Your task to perform on an android device: Clear the shopping cart on target. Add razer blade to the cart on target, then select checkout. Image 0: 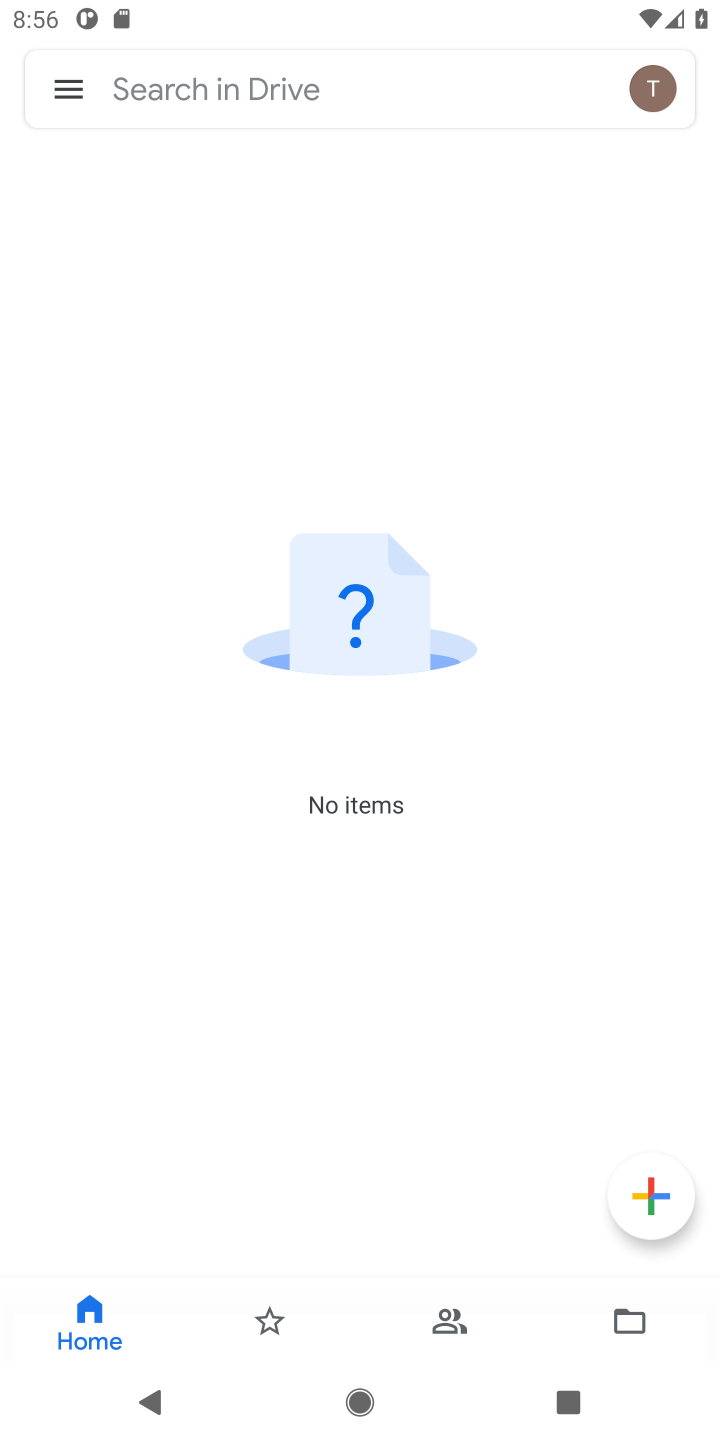
Step 0: press home button
Your task to perform on an android device: Clear the shopping cart on target. Add razer blade to the cart on target, then select checkout. Image 1: 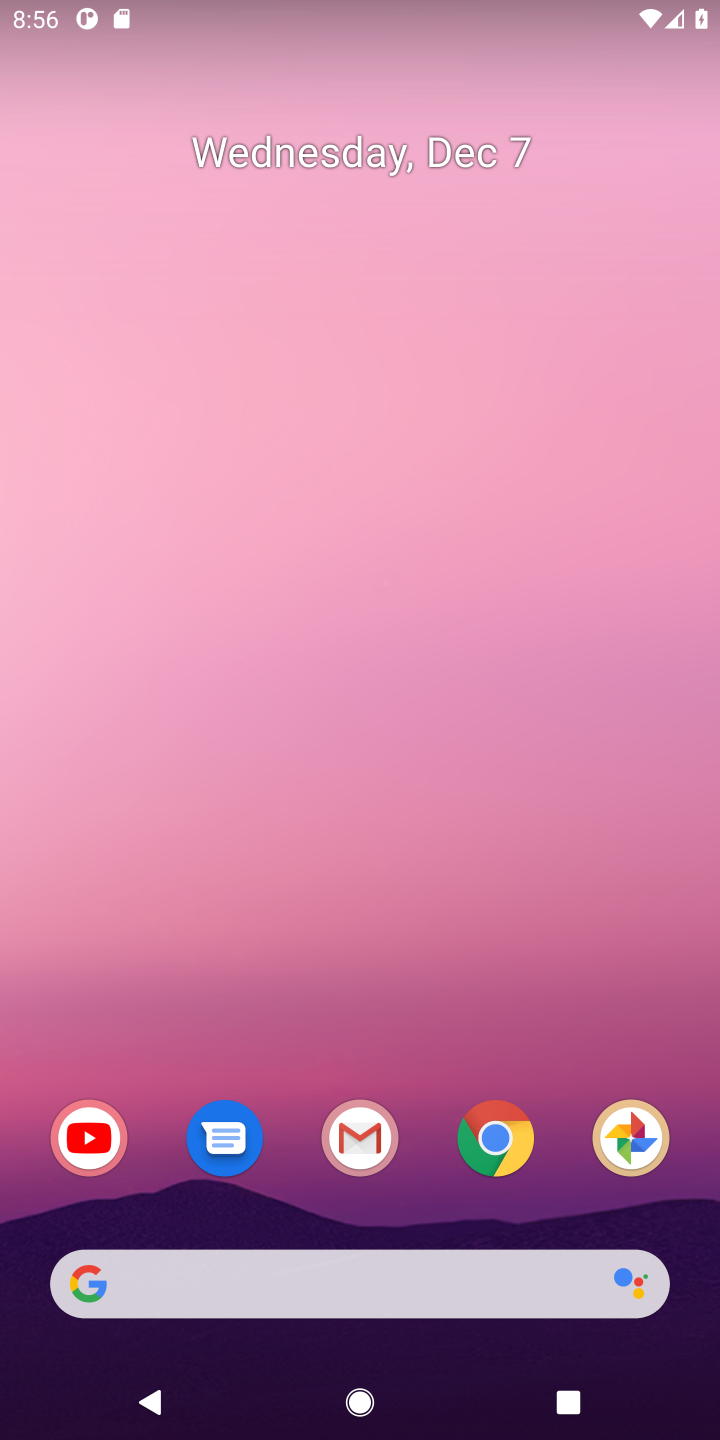
Step 1: click (132, 1270)
Your task to perform on an android device: Clear the shopping cart on target. Add razer blade to the cart on target, then select checkout. Image 2: 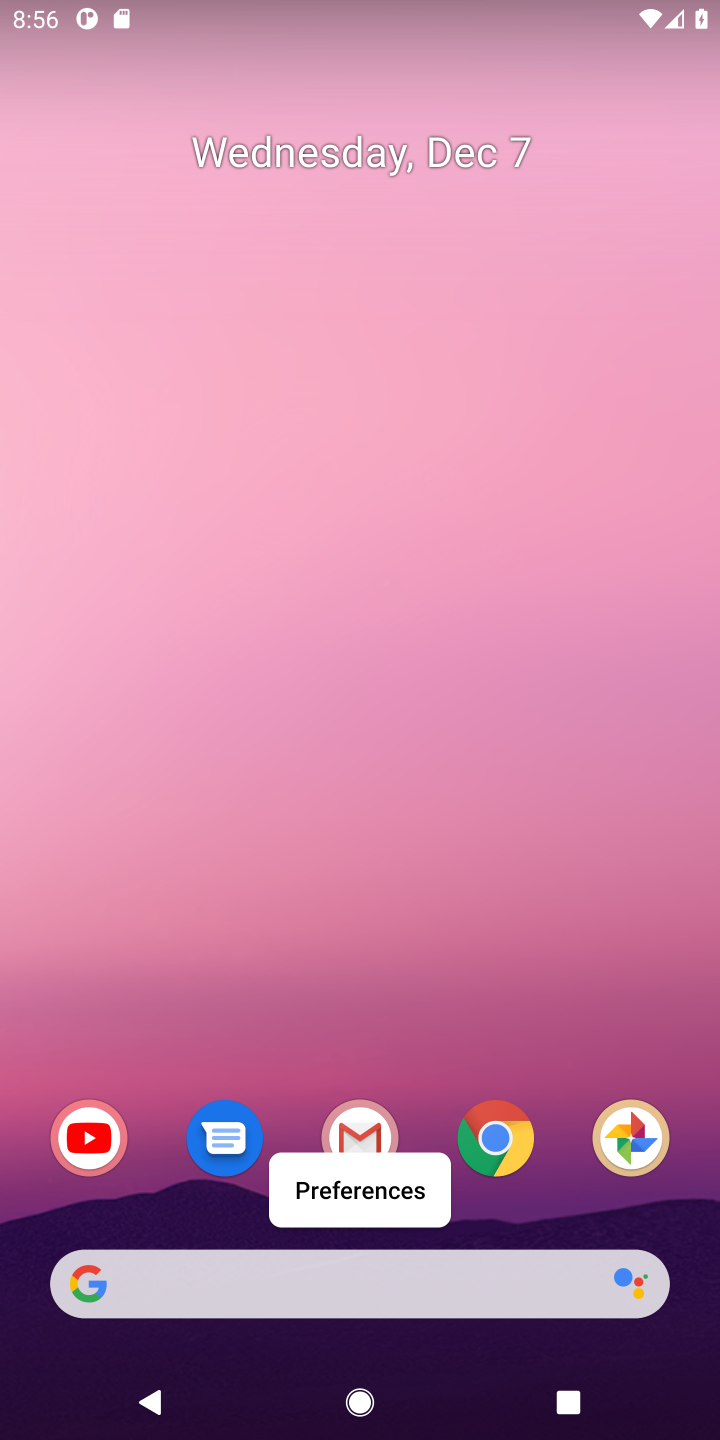
Step 2: click (120, 1303)
Your task to perform on an android device: Clear the shopping cart on target. Add razer blade to the cart on target, then select checkout. Image 3: 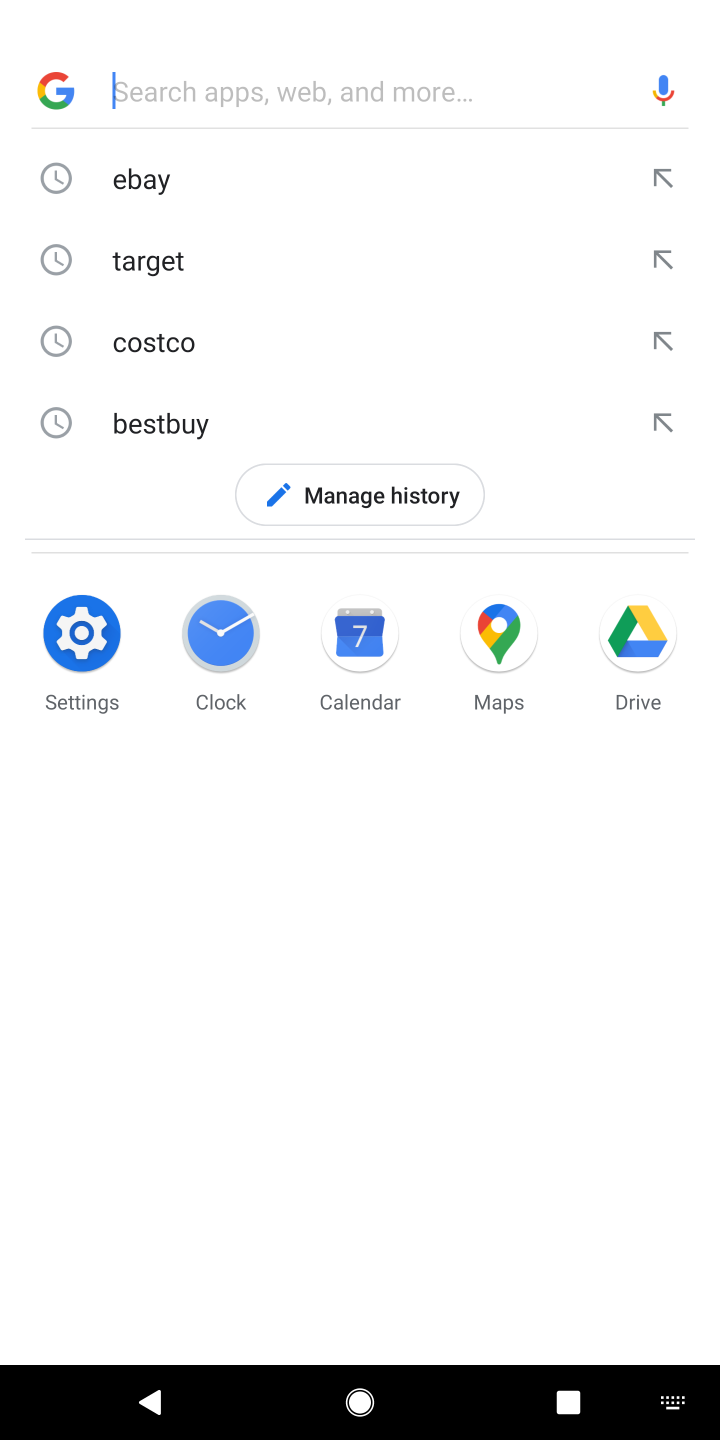
Step 3: type "target"
Your task to perform on an android device: Clear the shopping cart on target. Add razer blade to the cart on target, then select checkout. Image 4: 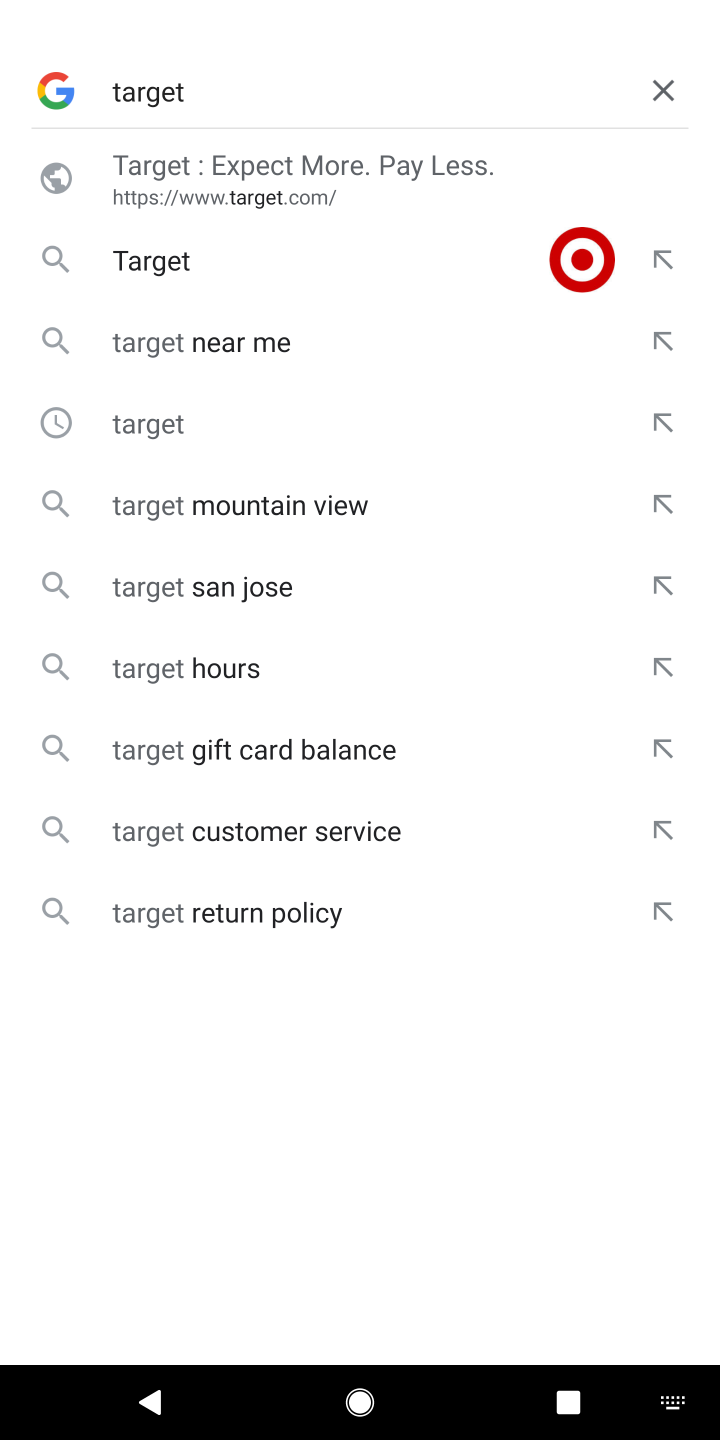
Step 4: press enter
Your task to perform on an android device: Clear the shopping cart on target. Add razer blade to the cart on target, then select checkout. Image 5: 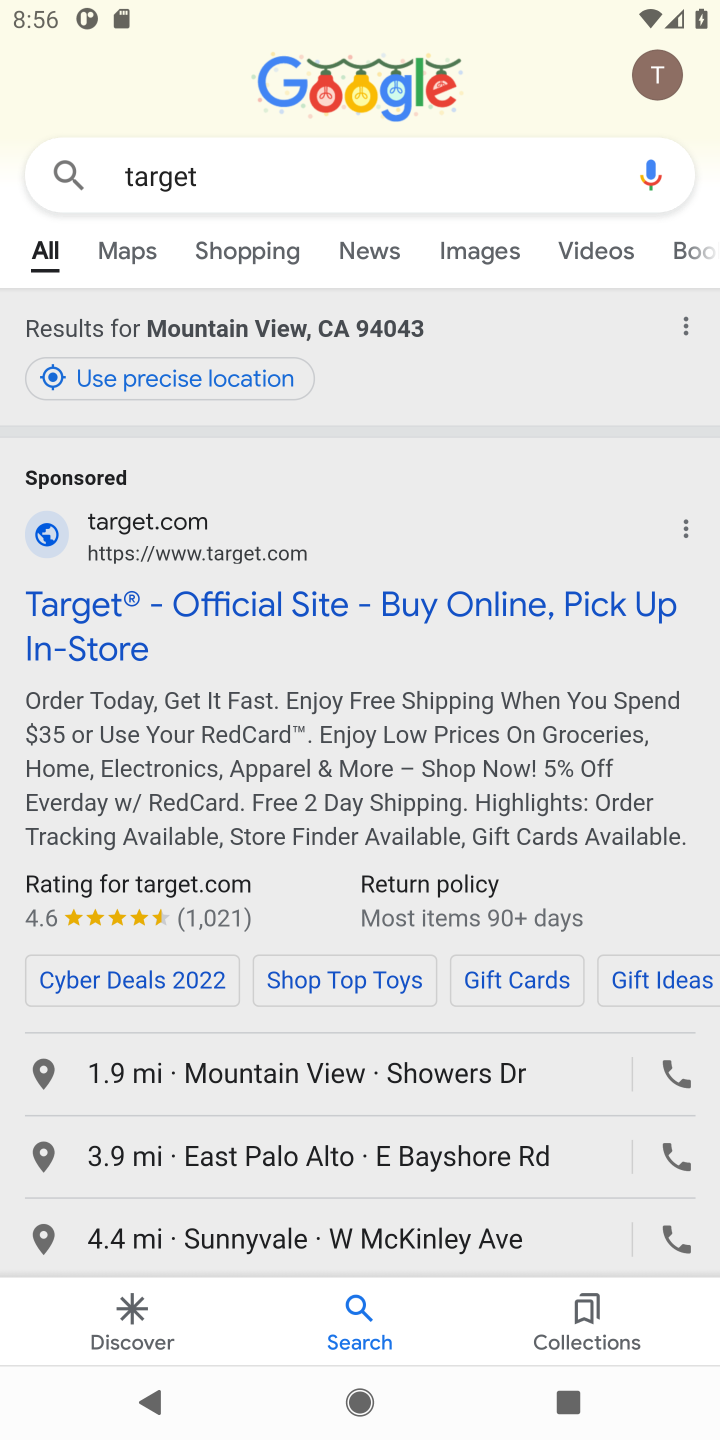
Step 5: click (247, 604)
Your task to perform on an android device: Clear the shopping cart on target. Add razer blade to the cart on target, then select checkout. Image 6: 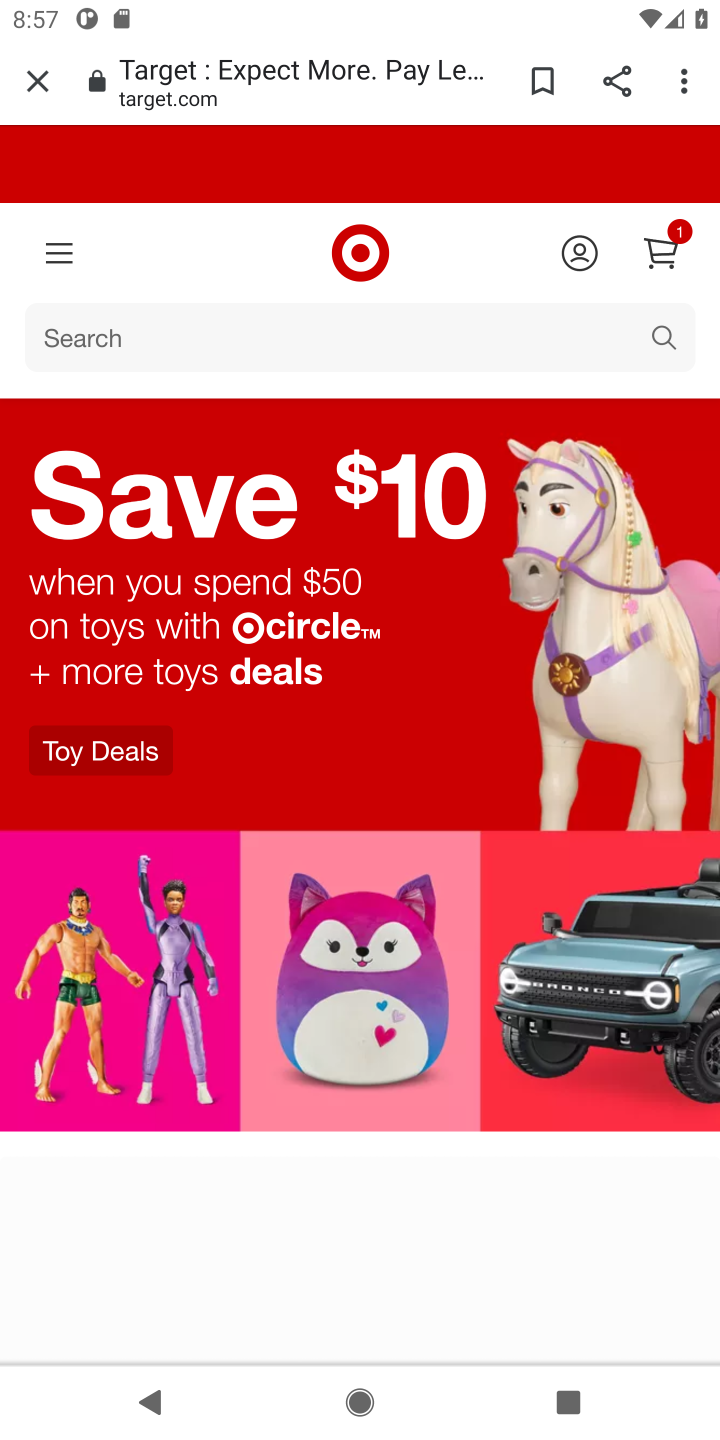
Step 6: click (666, 237)
Your task to perform on an android device: Clear the shopping cart on target. Add razer blade to the cart on target, then select checkout. Image 7: 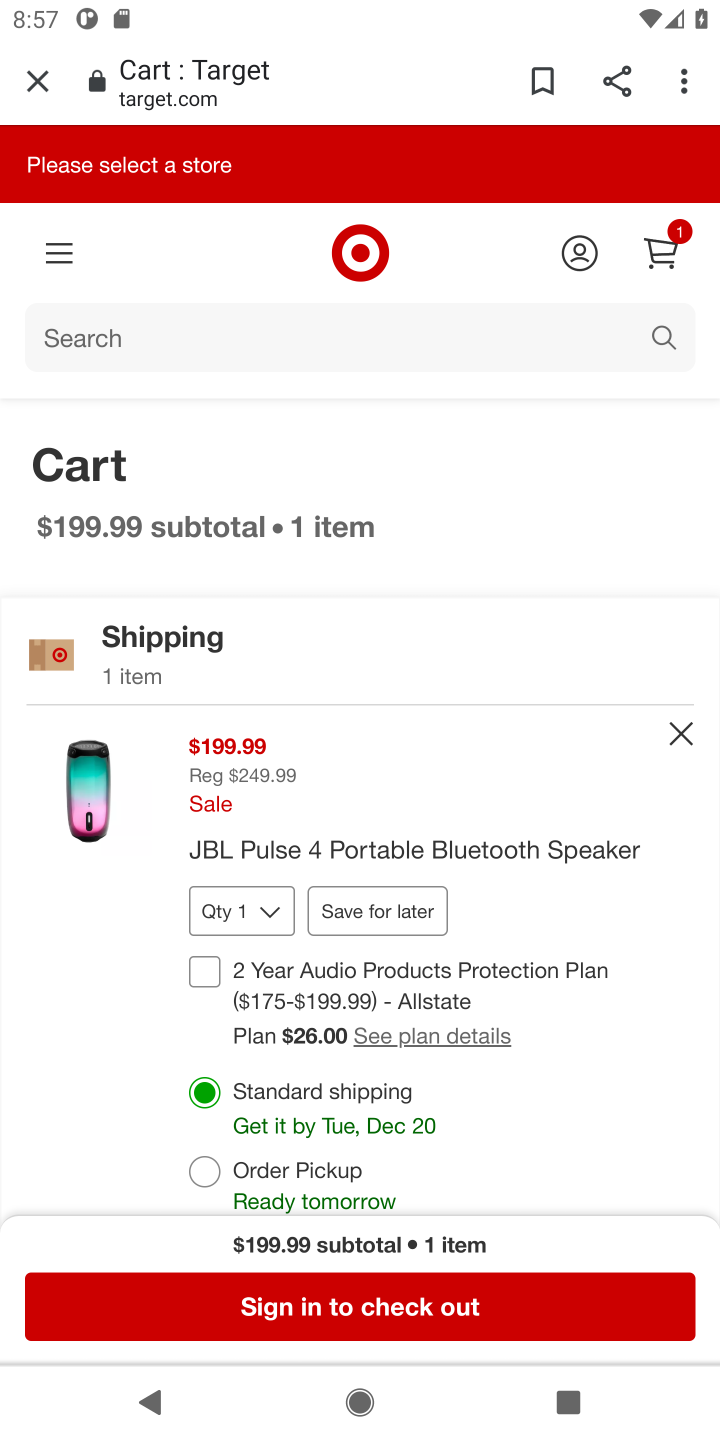
Step 7: click (675, 726)
Your task to perform on an android device: Clear the shopping cart on target. Add razer blade to the cart on target, then select checkout. Image 8: 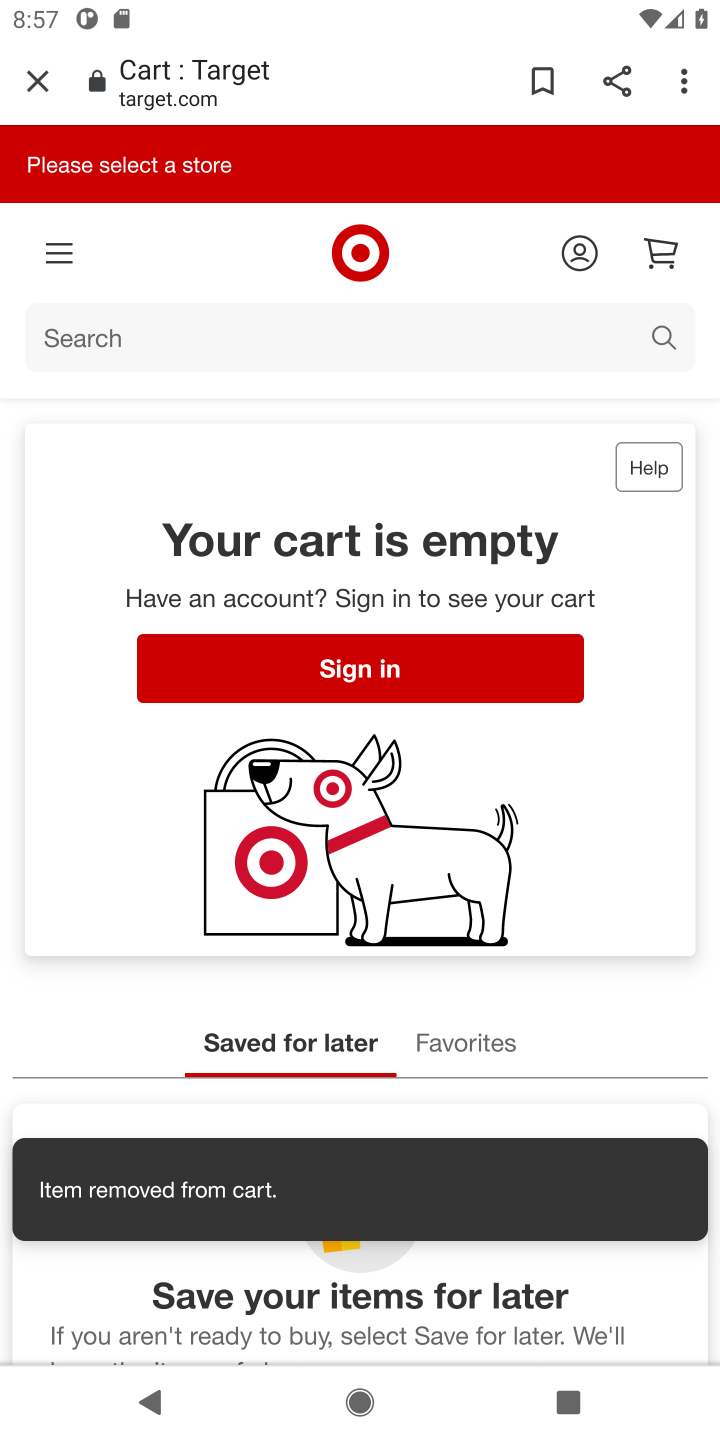
Step 8: click (182, 328)
Your task to perform on an android device: Clear the shopping cart on target. Add razer blade to the cart on target, then select checkout. Image 9: 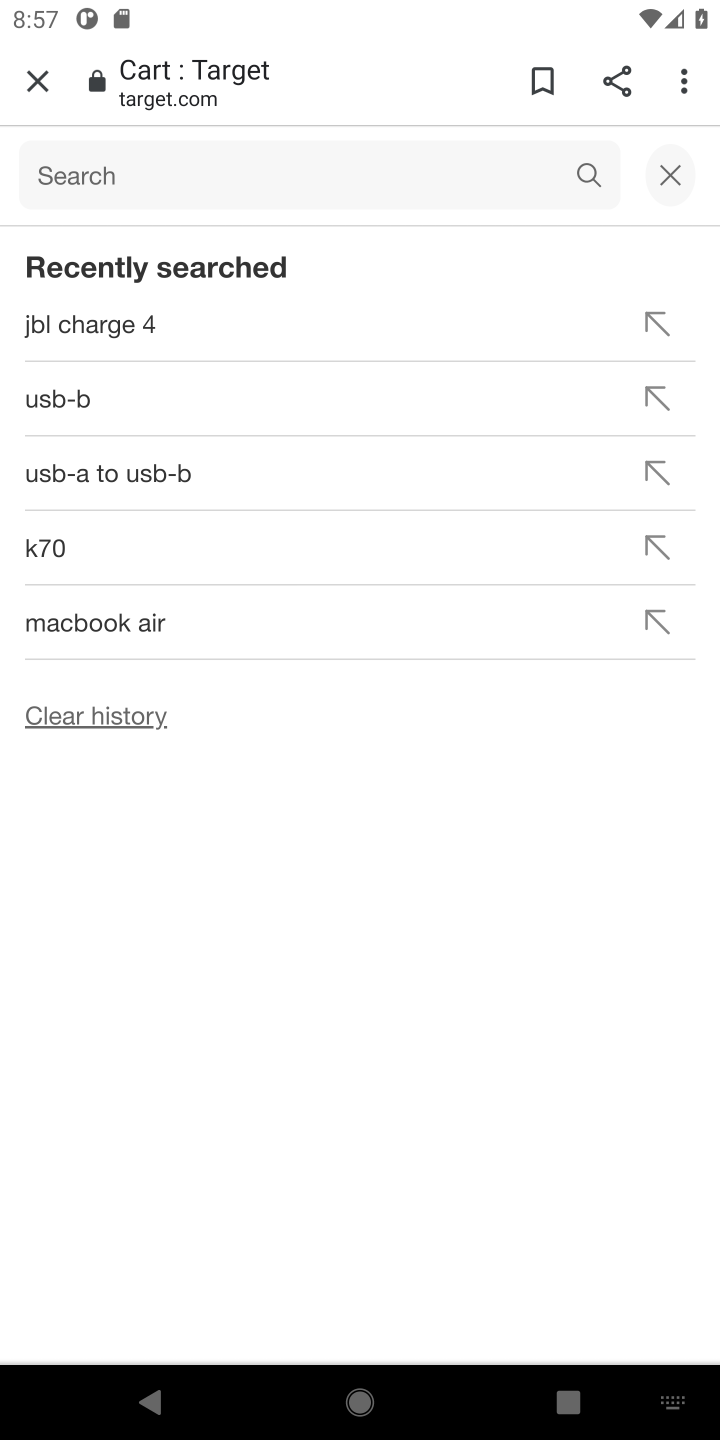
Step 9: type "Add razer blade"
Your task to perform on an android device: Clear the shopping cart on target. Add razer blade to the cart on target, then select checkout. Image 10: 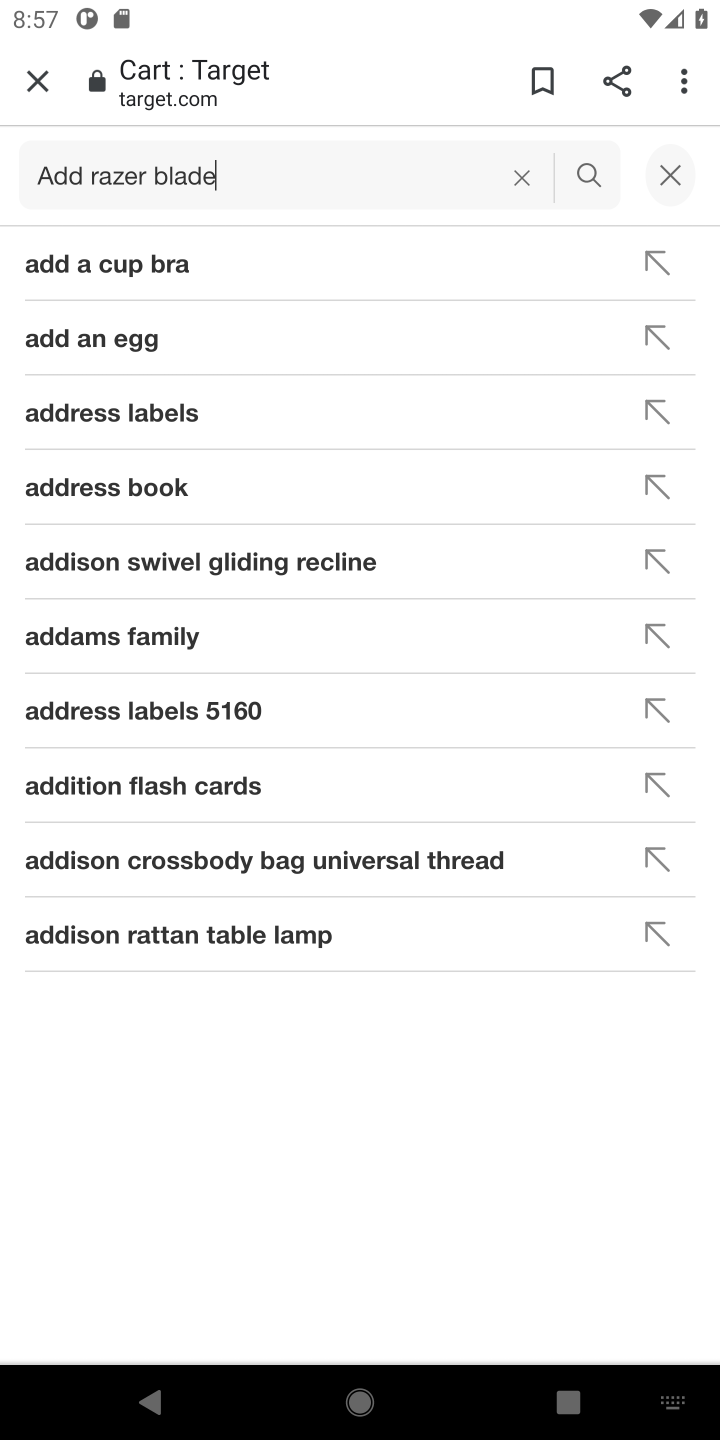
Step 10: click (592, 173)
Your task to perform on an android device: Clear the shopping cart on target. Add razer blade to the cart on target, then select checkout. Image 11: 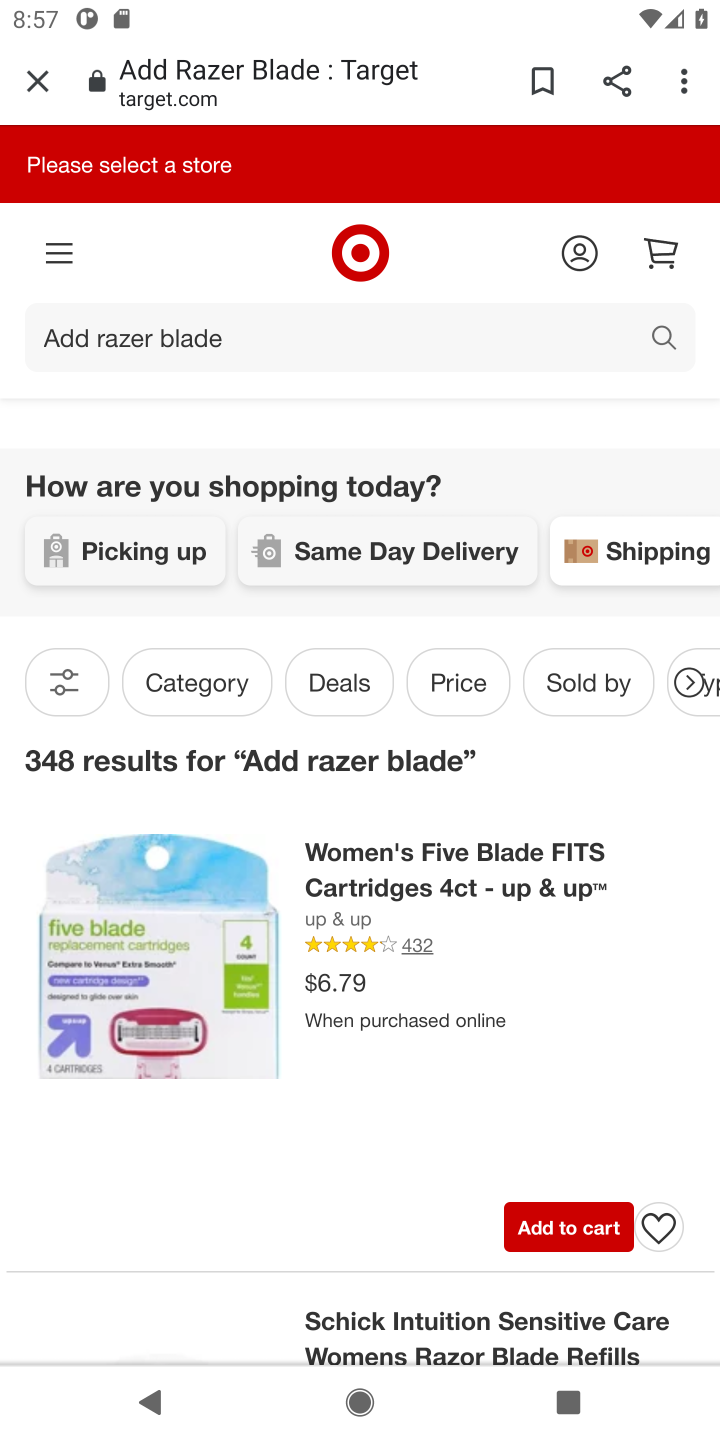
Step 11: drag from (365, 1139) to (438, 562)
Your task to perform on an android device: Clear the shopping cart on target. Add razer blade to the cart on target, then select checkout. Image 12: 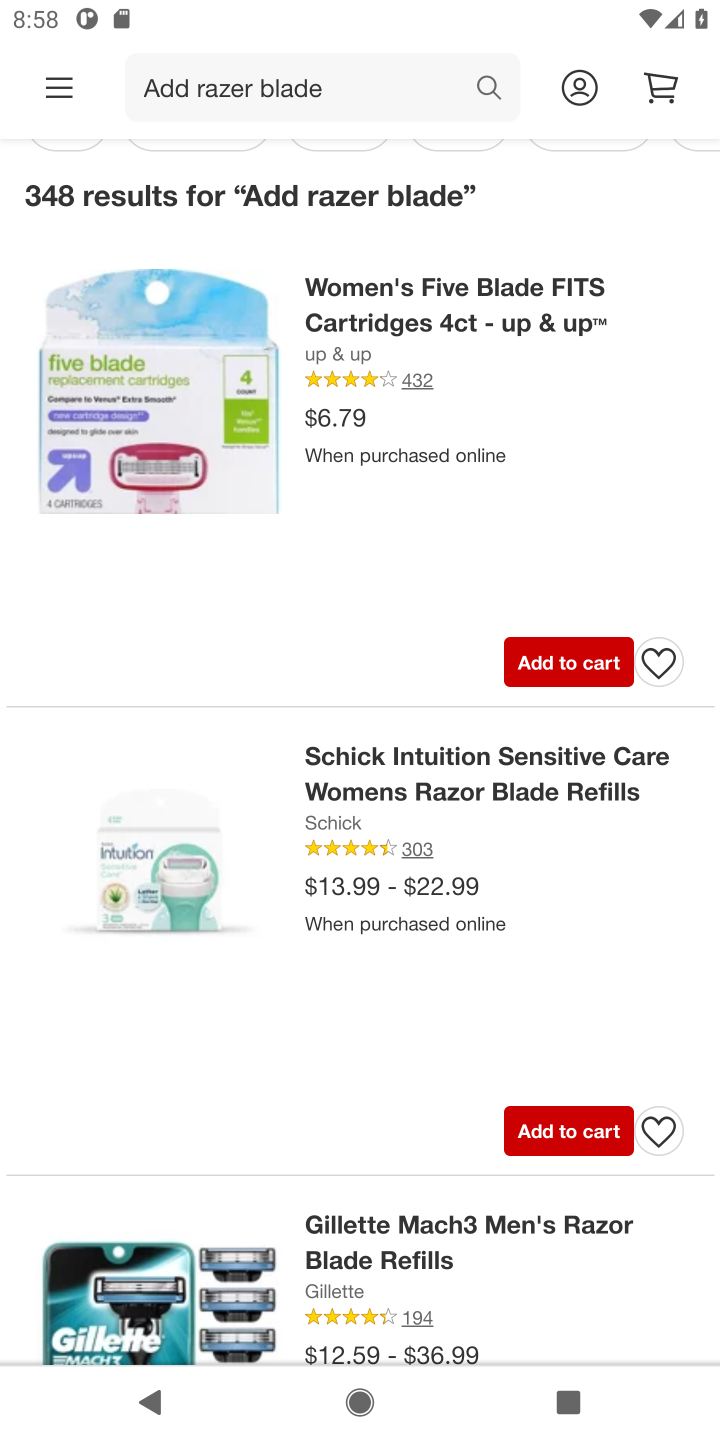
Step 12: drag from (407, 1248) to (442, 763)
Your task to perform on an android device: Clear the shopping cart on target. Add razer blade to the cart on target, then select checkout. Image 13: 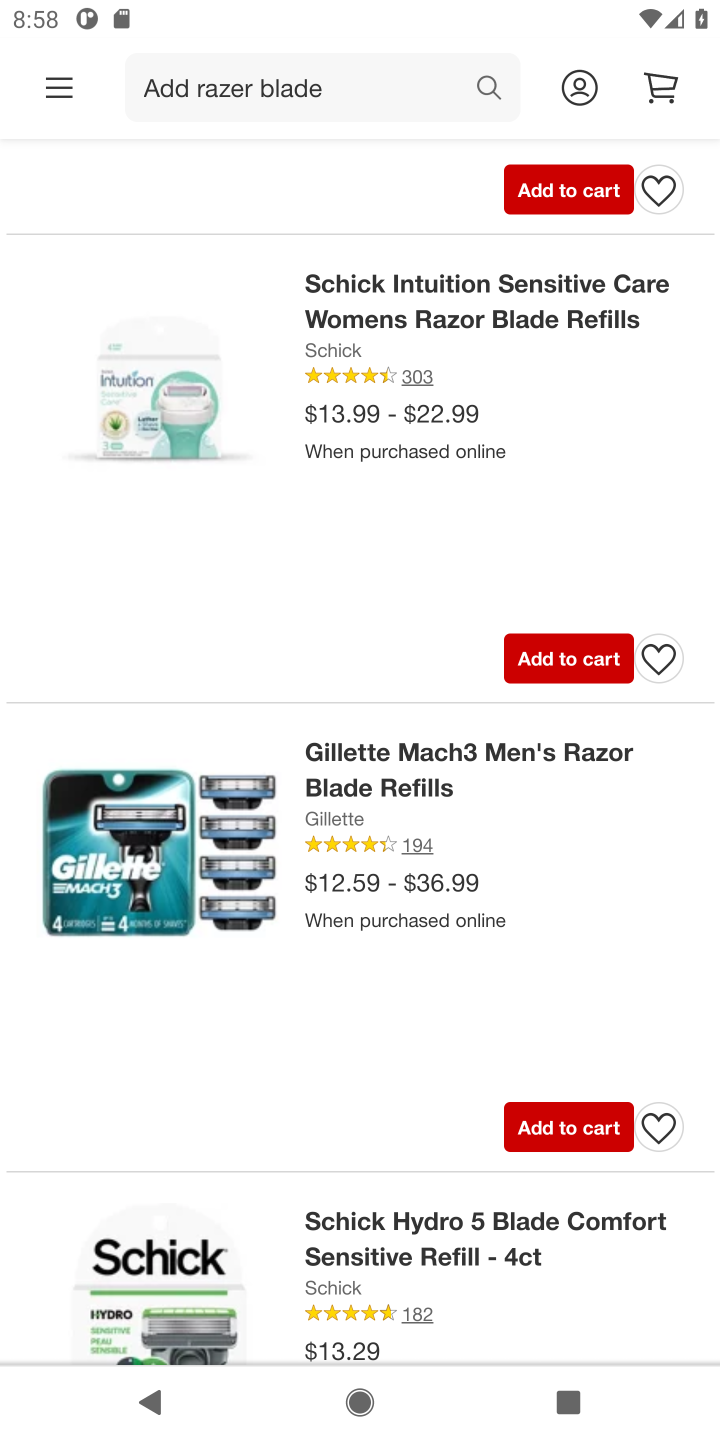
Step 13: click (547, 1119)
Your task to perform on an android device: Clear the shopping cart on target. Add razer blade to the cart on target, then select checkout. Image 14: 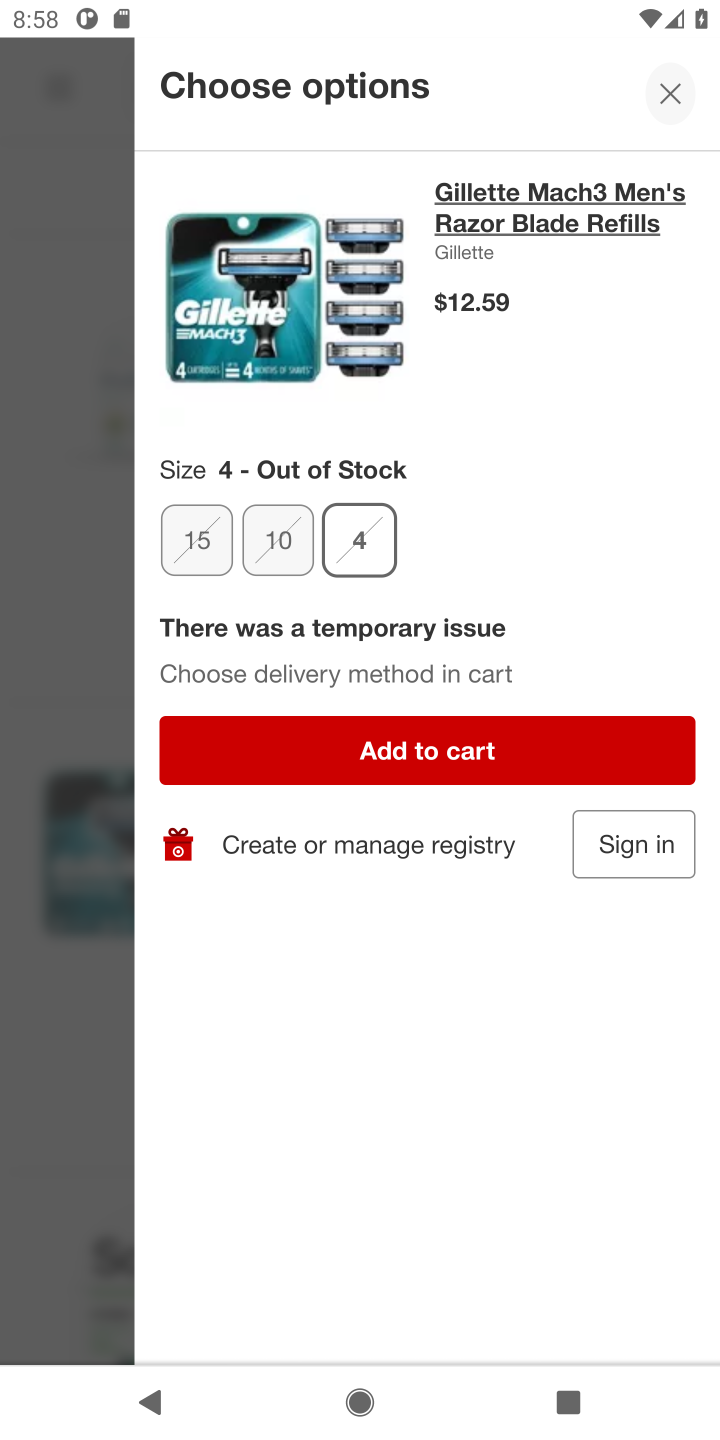
Step 14: task complete